Your task to perform on an android device: open a new tab in the chrome app Image 0: 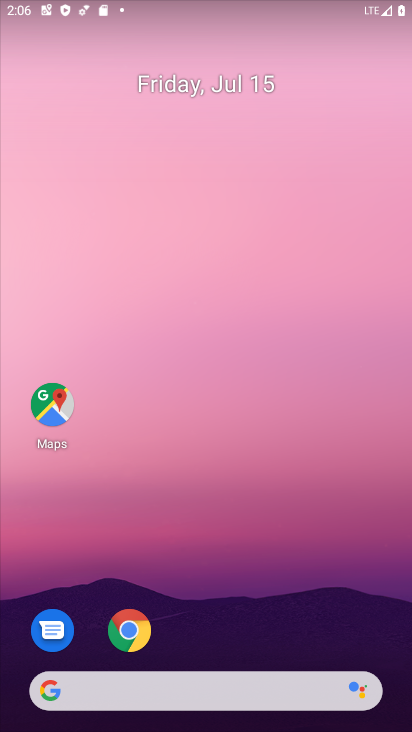
Step 0: click (129, 631)
Your task to perform on an android device: open a new tab in the chrome app Image 1: 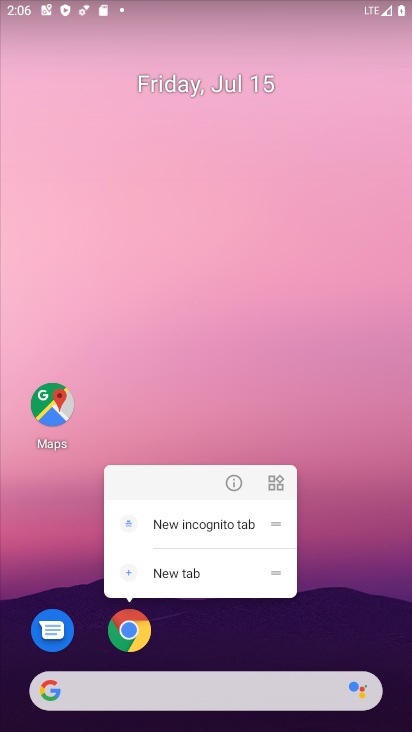
Step 1: click (137, 621)
Your task to perform on an android device: open a new tab in the chrome app Image 2: 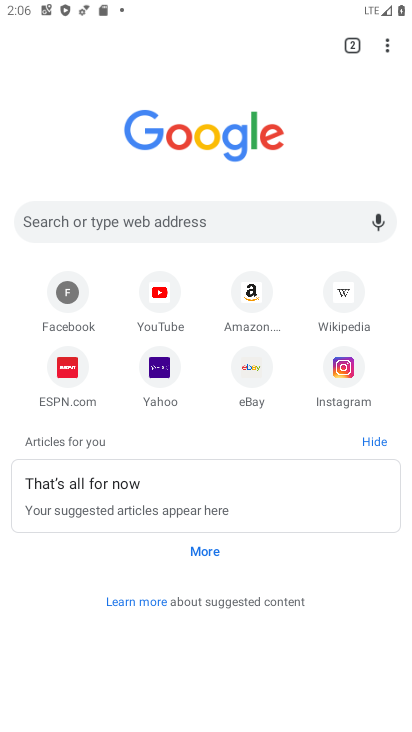
Step 2: click (383, 38)
Your task to perform on an android device: open a new tab in the chrome app Image 3: 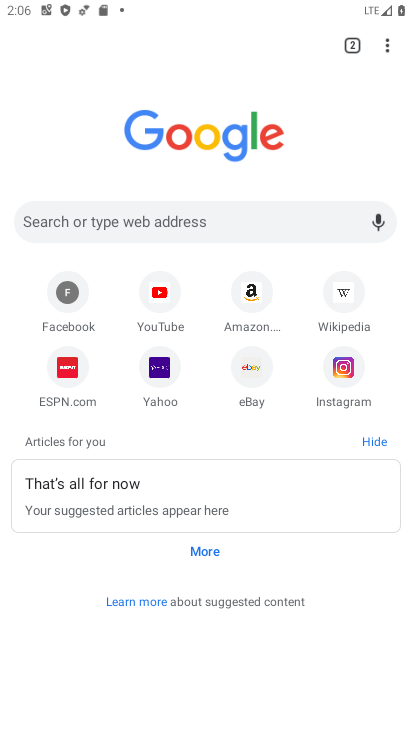
Step 3: task complete